Your task to perform on an android device: choose inbox layout in the gmail app Image 0: 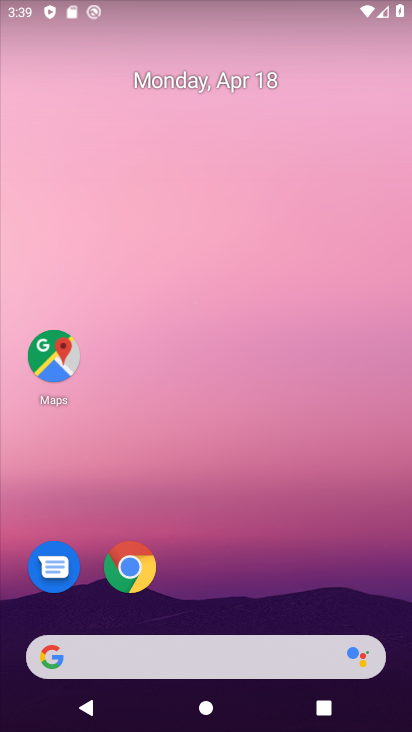
Step 0: drag from (236, 613) to (255, 291)
Your task to perform on an android device: choose inbox layout in the gmail app Image 1: 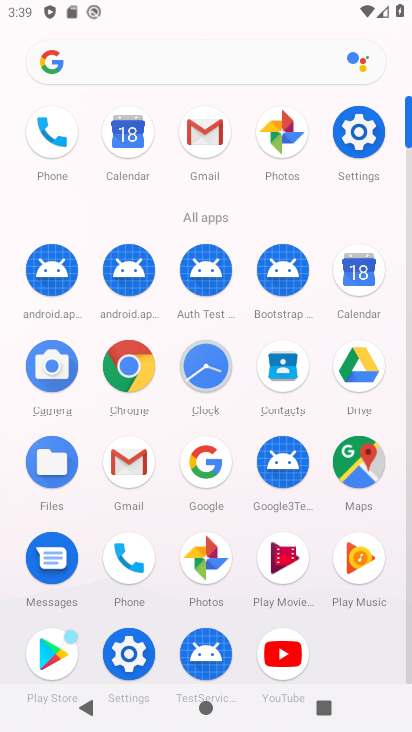
Step 1: click (138, 471)
Your task to perform on an android device: choose inbox layout in the gmail app Image 2: 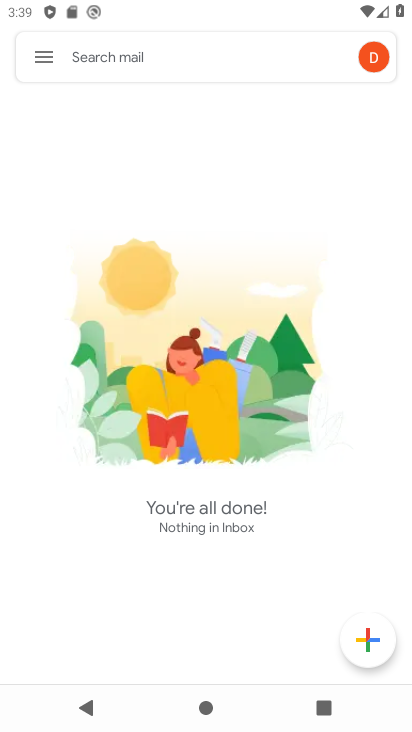
Step 2: click (49, 67)
Your task to perform on an android device: choose inbox layout in the gmail app Image 3: 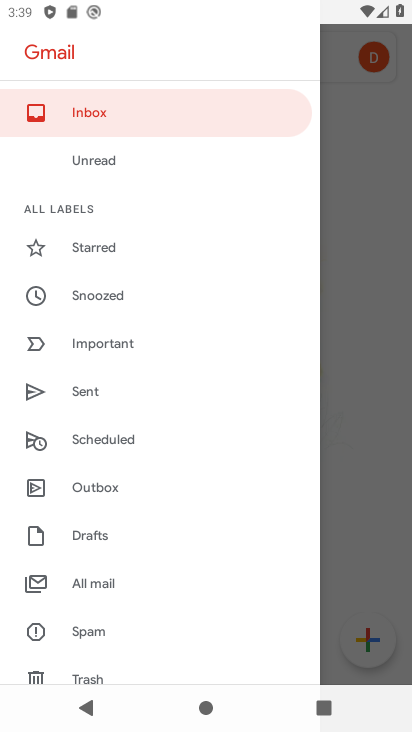
Step 3: click (89, 125)
Your task to perform on an android device: choose inbox layout in the gmail app Image 4: 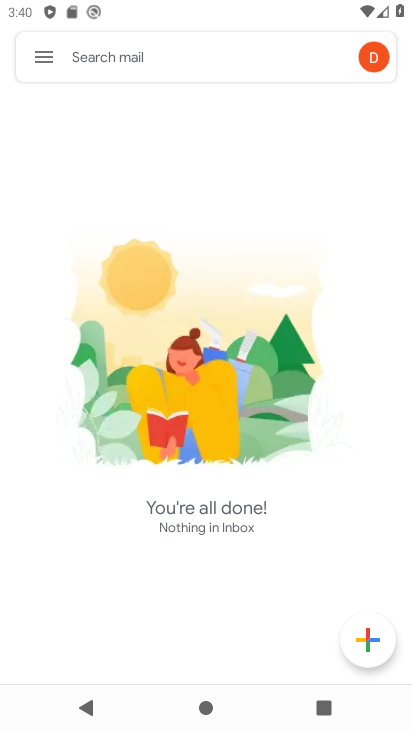
Step 4: task complete